Your task to perform on an android device: open chrome privacy settings Image 0: 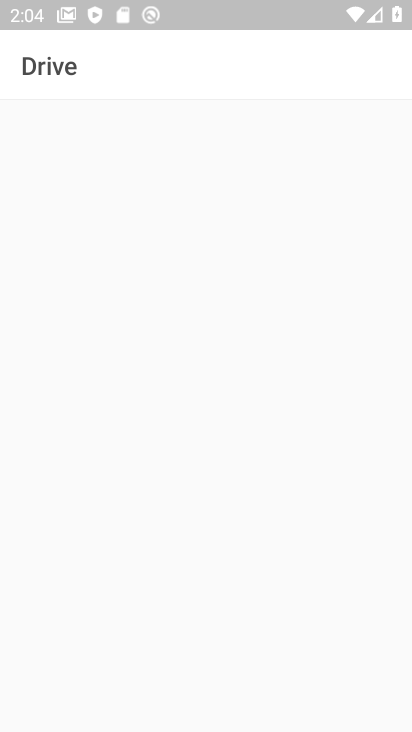
Step 0: press home button
Your task to perform on an android device: open chrome privacy settings Image 1: 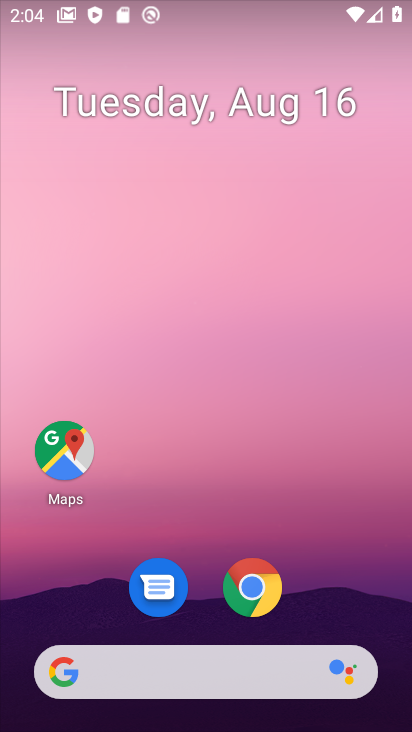
Step 1: drag from (174, 631) to (197, 160)
Your task to perform on an android device: open chrome privacy settings Image 2: 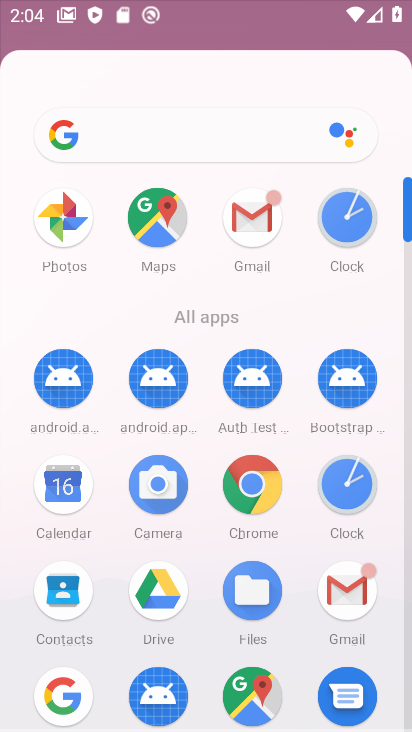
Step 2: drag from (177, 646) to (195, 269)
Your task to perform on an android device: open chrome privacy settings Image 3: 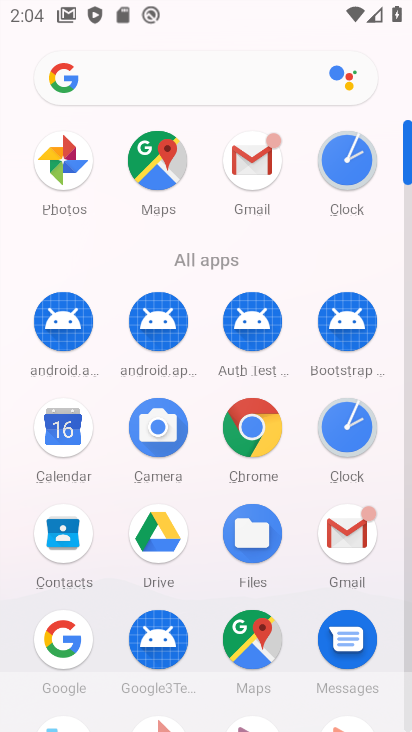
Step 3: click (247, 421)
Your task to perform on an android device: open chrome privacy settings Image 4: 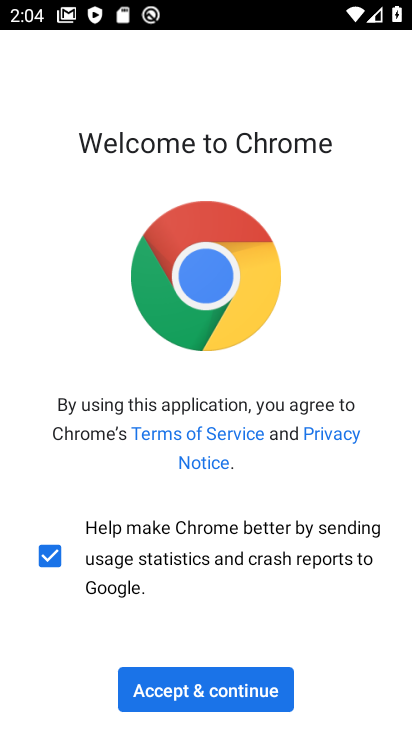
Step 4: click (225, 696)
Your task to perform on an android device: open chrome privacy settings Image 5: 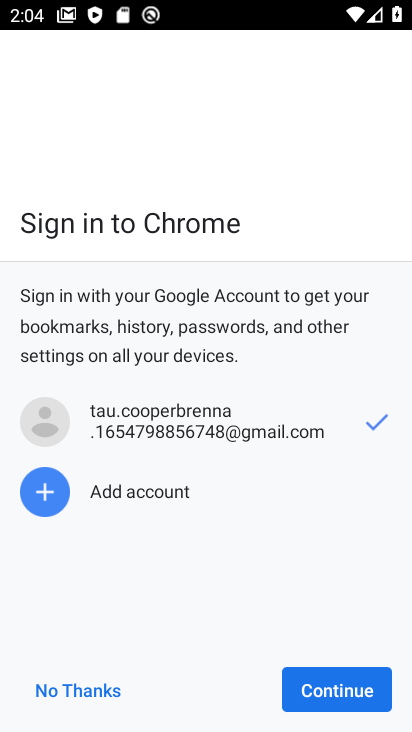
Step 5: click (308, 681)
Your task to perform on an android device: open chrome privacy settings Image 6: 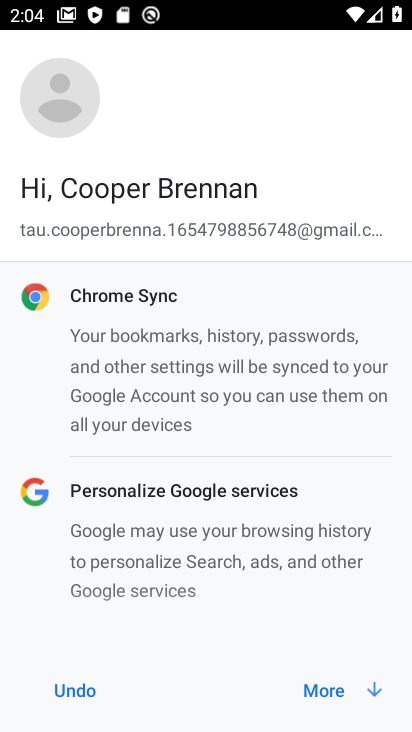
Step 6: click (316, 690)
Your task to perform on an android device: open chrome privacy settings Image 7: 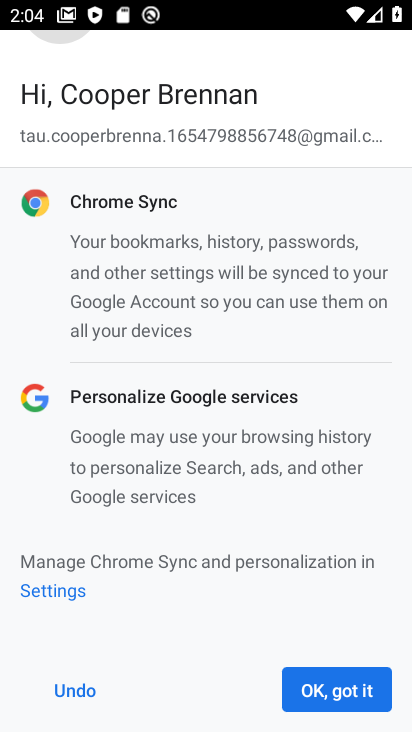
Step 7: click (316, 690)
Your task to perform on an android device: open chrome privacy settings Image 8: 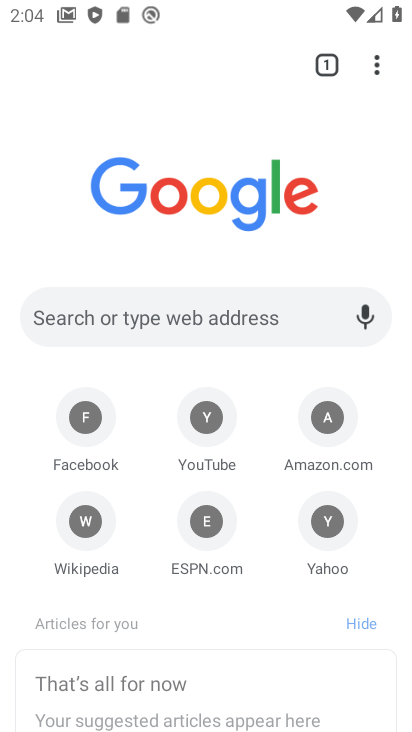
Step 8: click (376, 62)
Your task to perform on an android device: open chrome privacy settings Image 9: 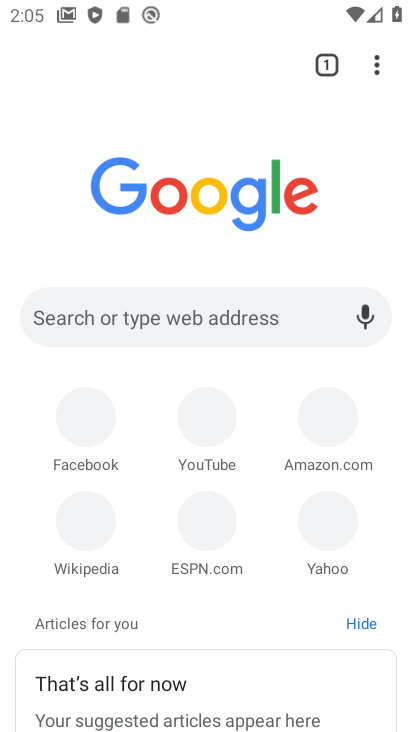
Step 9: click (376, 62)
Your task to perform on an android device: open chrome privacy settings Image 10: 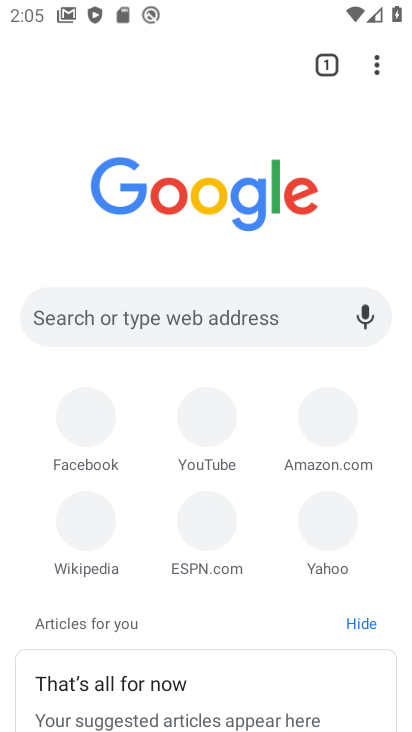
Step 10: click (376, 62)
Your task to perform on an android device: open chrome privacy settings Image 11: 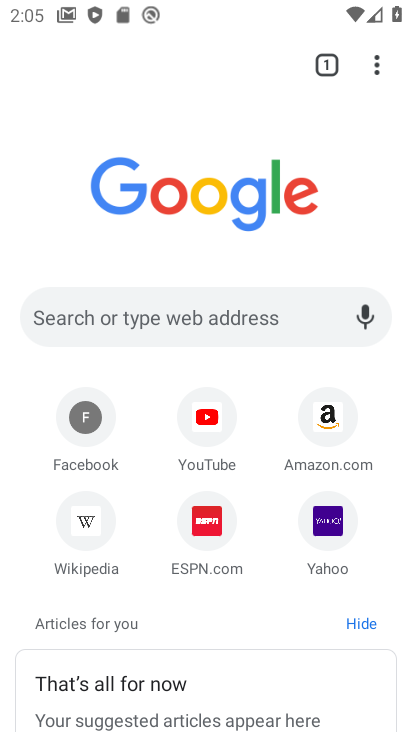
Step 11: click (383, 64)
Your task to perform on an android device: open chrome privacy settings Image 12: 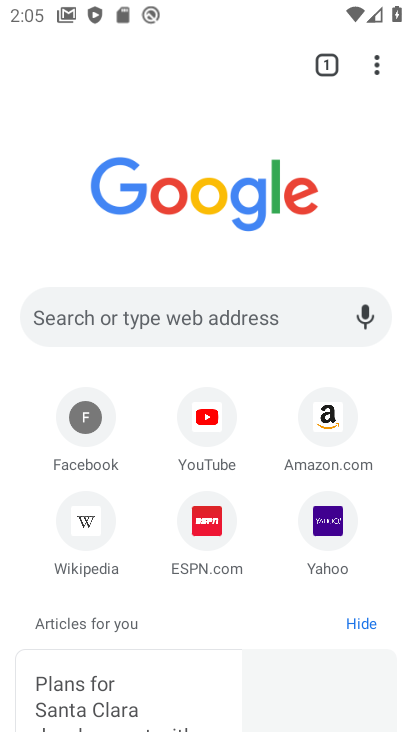
Step 12: click (361, 61)
Your task to perform on an android device: open chrome privacy settings Image 13: 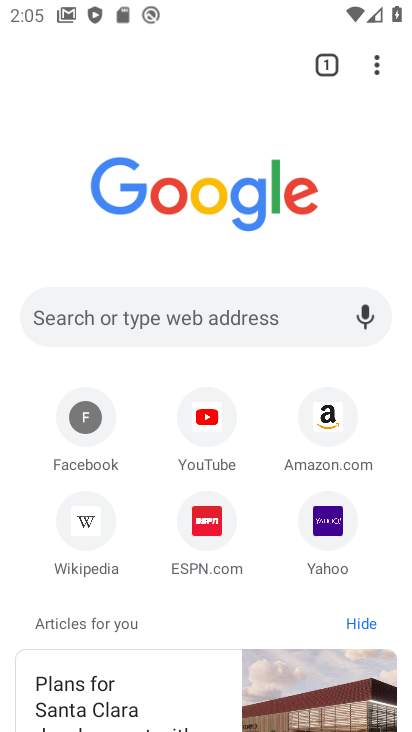
Step 13: click (373, 64)
Your task to perform on an android device: open chrome privacy settings Image 14: 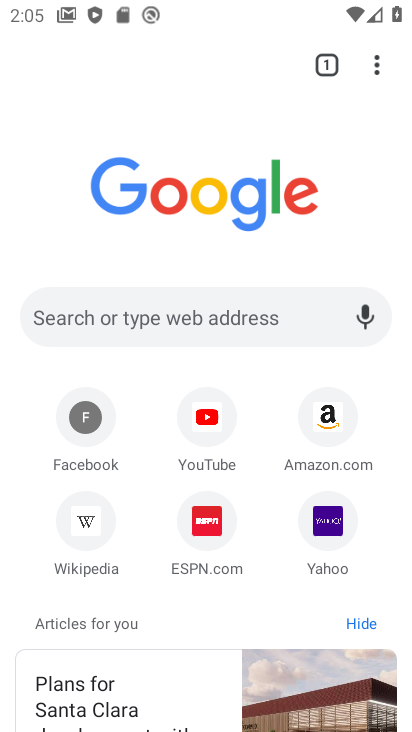
Step 14: click (373, 64)
Your task to perform on an android device: open chrome privacy settings Image 15: 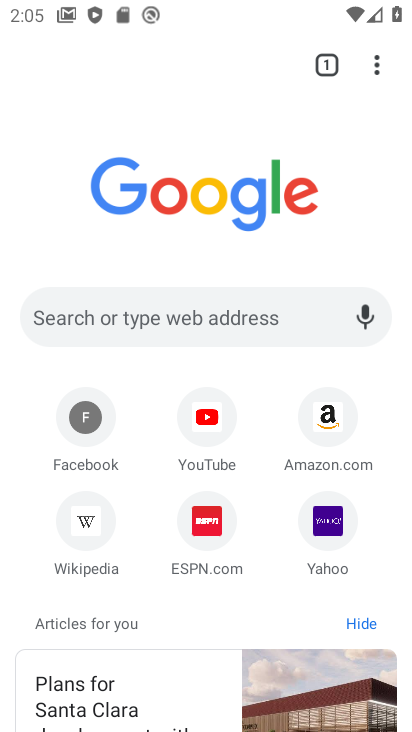
Step 15: click (373, 64)
Your task to perform on an android device: open chrome privacy settings Image 16: 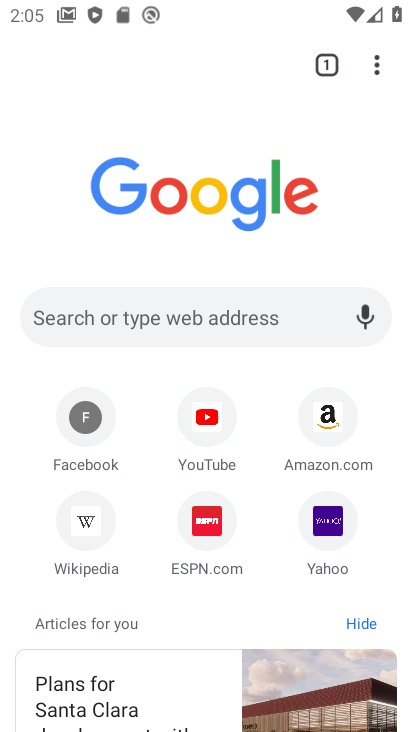
Step 16: click (373, 64)
Your task to perform on an android device: open chrome privacy settings Image 17: 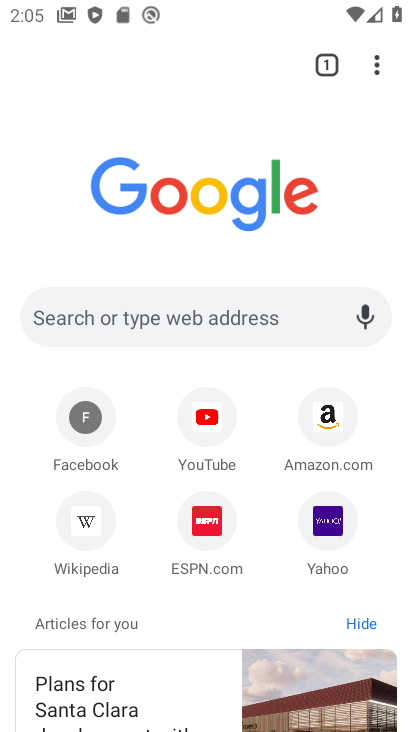
Step 17: click (373, 64)
Your task to perform on an android device: open chrome privacy settings Image 18: 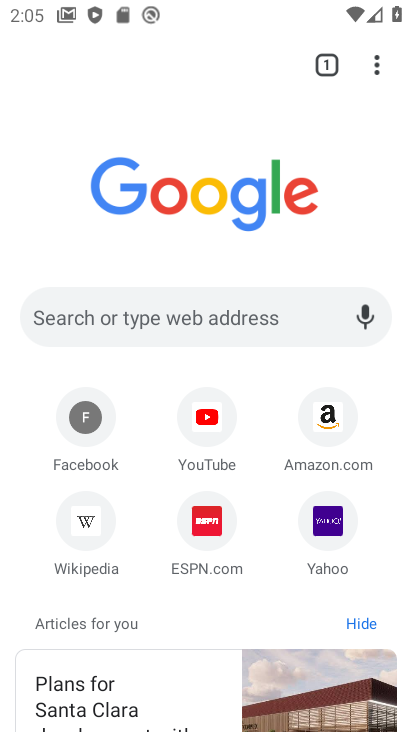
Step 18: click (373, 64)
Your task to perform on an android device: open chrome privacy settings Image 19: 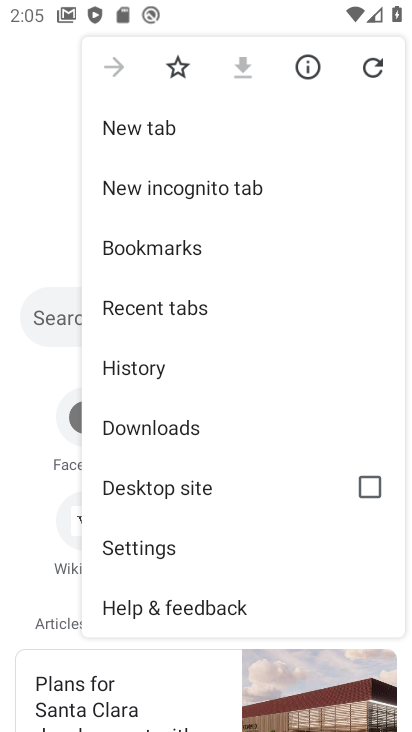
Step 19: click (141, 558)
Your task to perform on an android device: open chrome privacy settings Image 20: 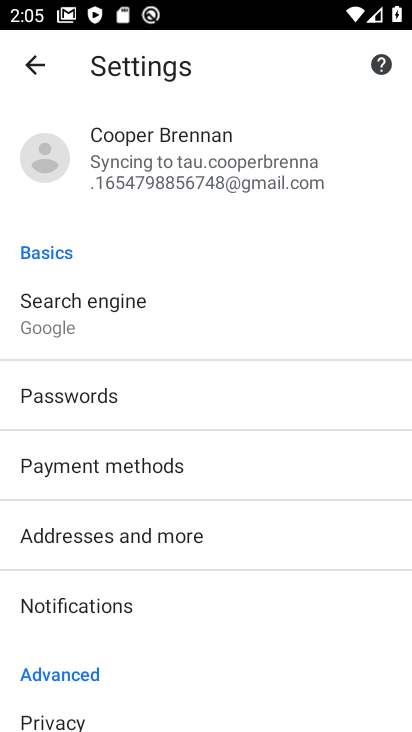
Step 20: drag from (129, 612) to (213, 211)
Your task to perform on an android device: open chrome privacy settings Image 21: 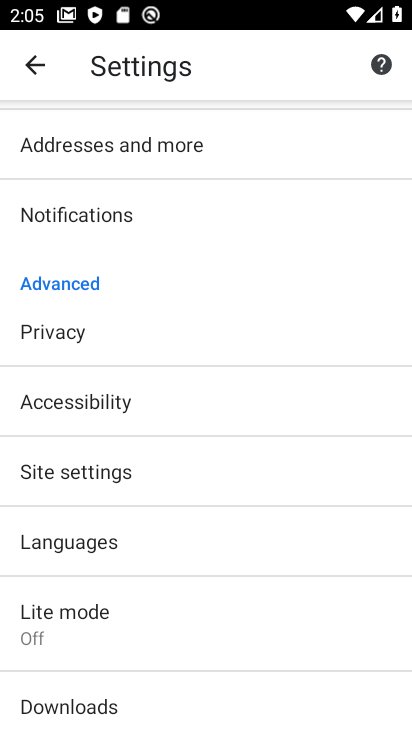
Step 21: click (80, 332)
Your task to perform on an android device: open chrome privacy settings Image 22: 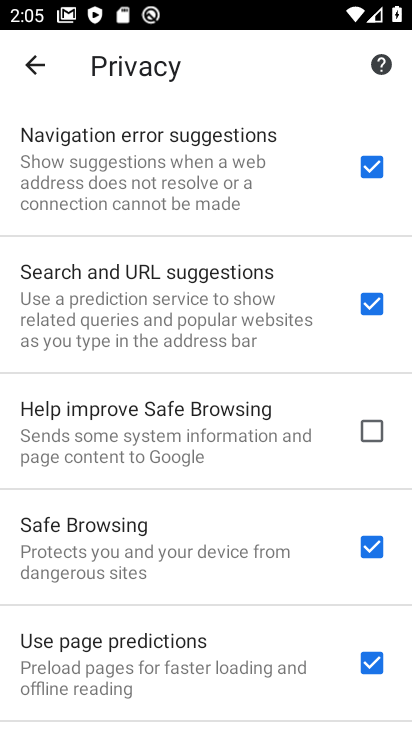
Step 22: task complete